Your task to perform on an android device: Check the news Image 0: 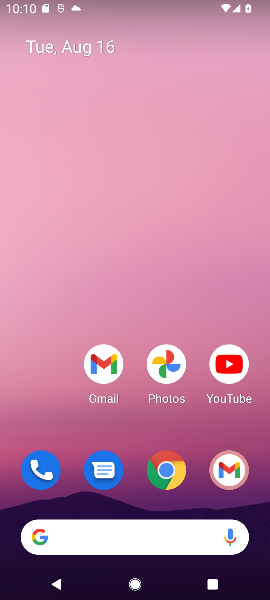
Step 0: click (142, 537)
Your task to perform on an android device: Check the news Image 1: 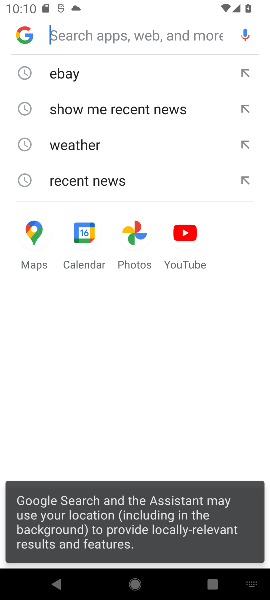
Step 1: click (110, 173)
Your task to perform on an android device: Check the news Image 2: 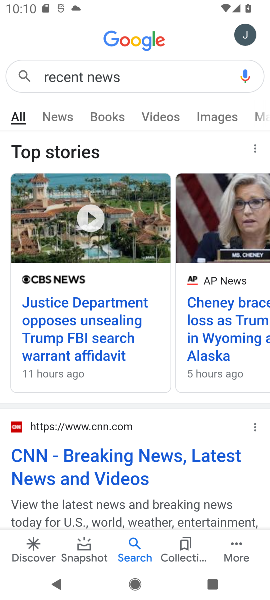
Step 2: task complete